Your task to perform on an android device: Open Maps and search for coffee Image 0: 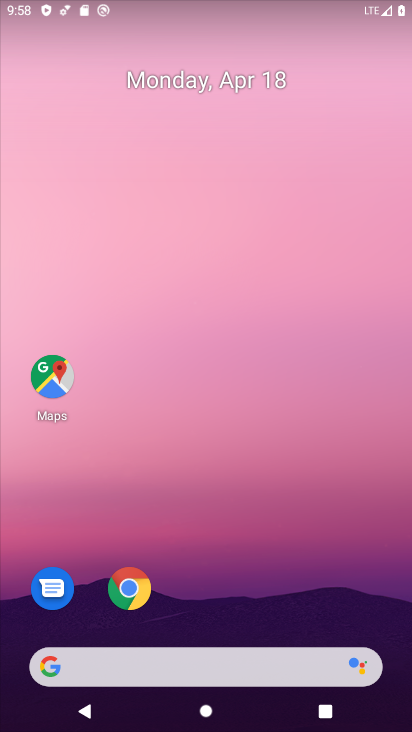
Step 0: click (46, 374)
Your task to perform on an android device: Open Maps and search for coffee Image 1: 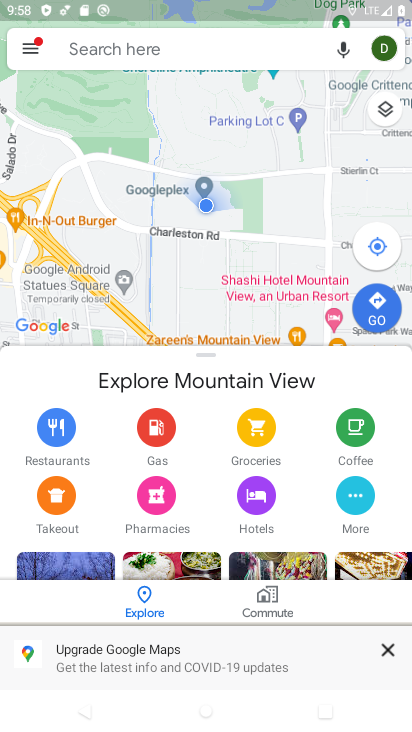
Step 1: click (115, 41)
Your task to perform on an android device: Open Maps and search for coffee Image 2: 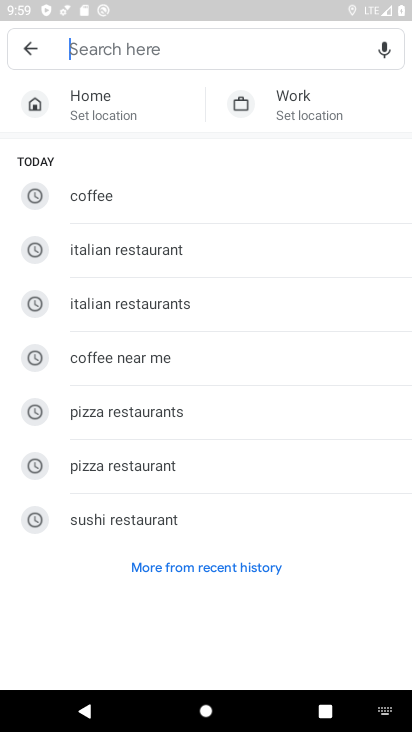
Step 2: type "coffee"
Your task to perform on an android device: Open Maps and search for coffee Image 3: 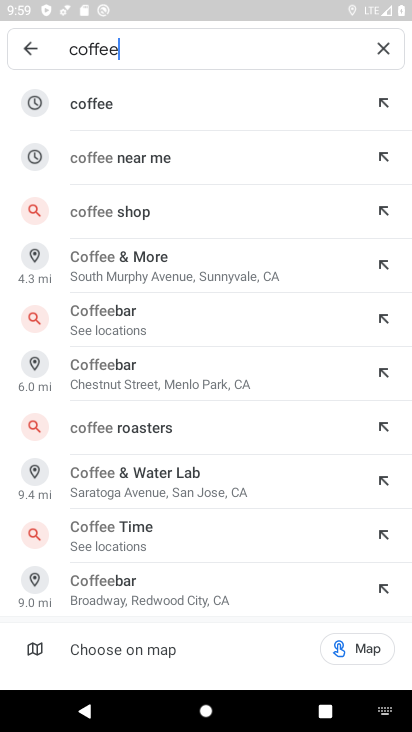
Step 3: click (88, 109)
Your task to perform on an android device: Open Maps and search for coffee Image 4: 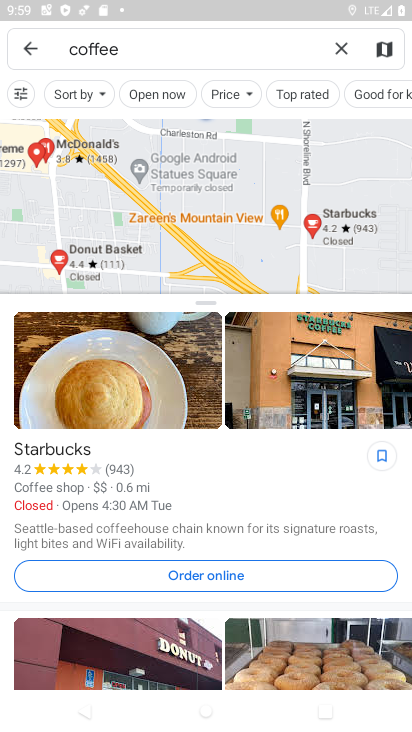
Step 4: task complete